Your task to perform on an android device: What is the recent news? Image 0: 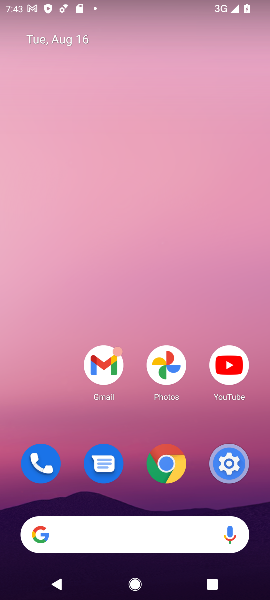
Step 0: click (114, 531)
Your task to perform on an android device: What is the recent news? Image 1: 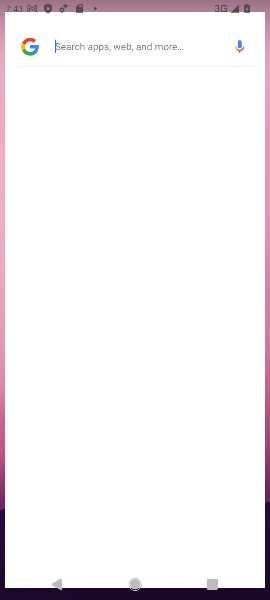
Step 1: click (125, 533)
Your task to perform on an android device: What is the recent news? Image 2: 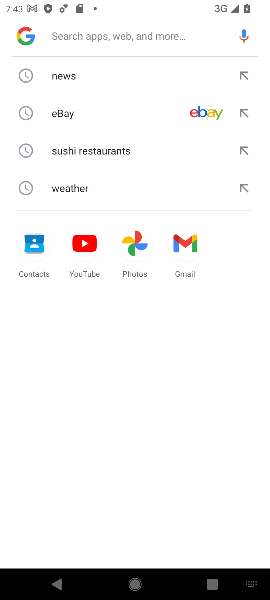
Step 2: type "recent news"
Your task to perform on an android device: What is the recent news? Image 3: 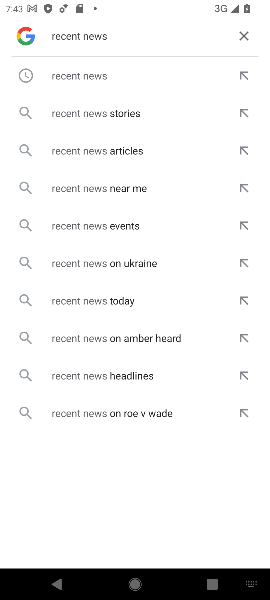
Step 3: click (87, 75)
Your task to perform on an android device: What is the recent news? Image 4: 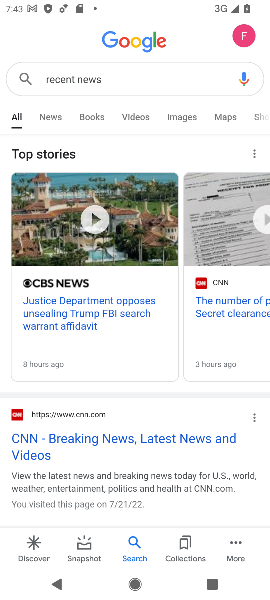
Step 4: task complete